Your task to perform on an android device: Go to Yahoo.com Image 0: 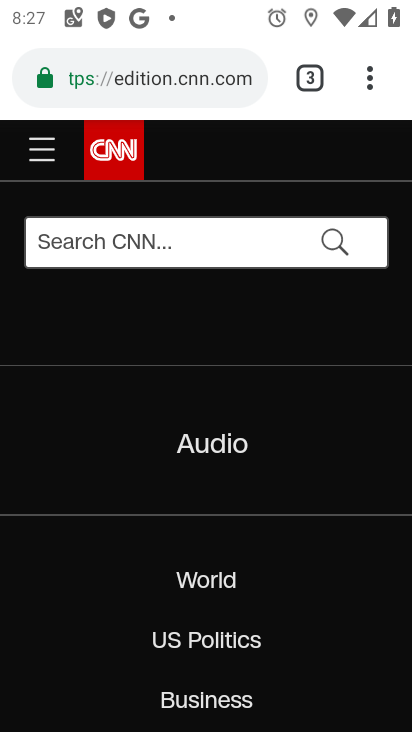
Step 0: press home button
Your task to perform on an android device: Go to Yahoo.com Image 1: 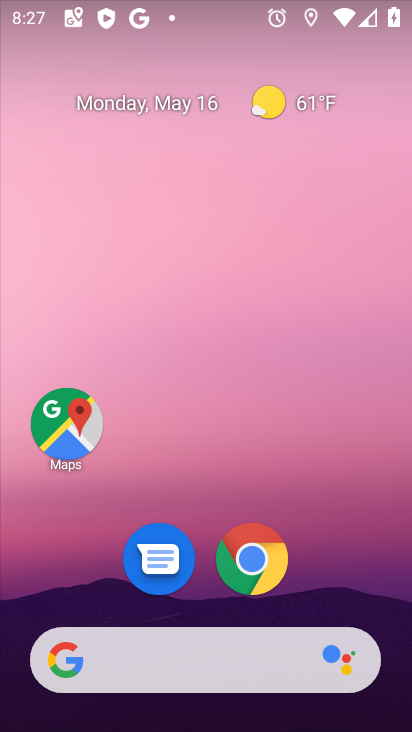
Step 1: drag from (356, 562) to (344, 87)
Your task to perform on an android device: Go to Yahoo.com Image 2: 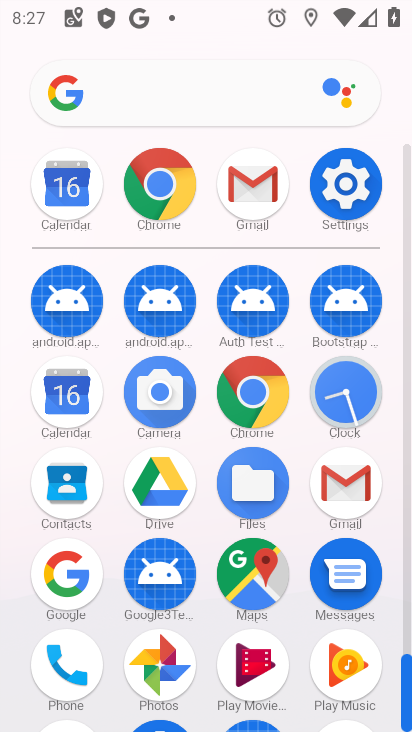
Step 2: click (255, 416)
Your task to perform on an android device: Go to Yahoo.com Image 3: 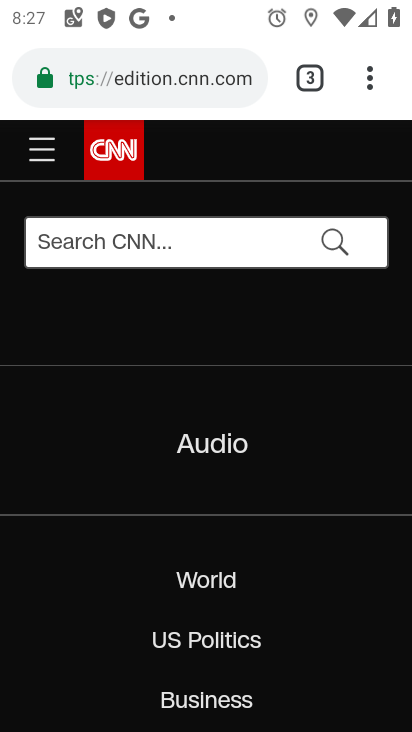
Step 3: click (232, 89)
Your task to perform on an android device: Go to Yahoo.com Image 4: 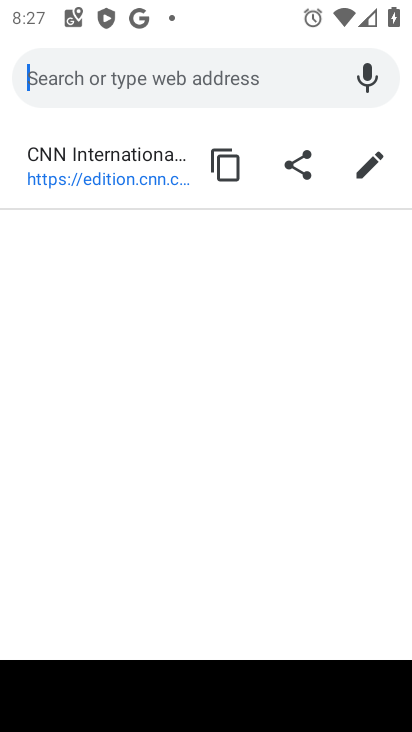
Step 4: type "yahoo.com"
Your task to perform on an android device: Go to Yahoo.com Image 5: 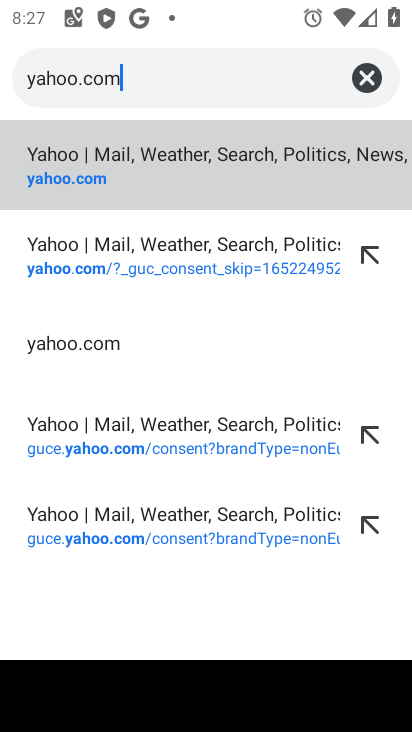
Step 5: click (89, 177)
Your task to perform on an android device: Go to Yahoo.com Image 6: 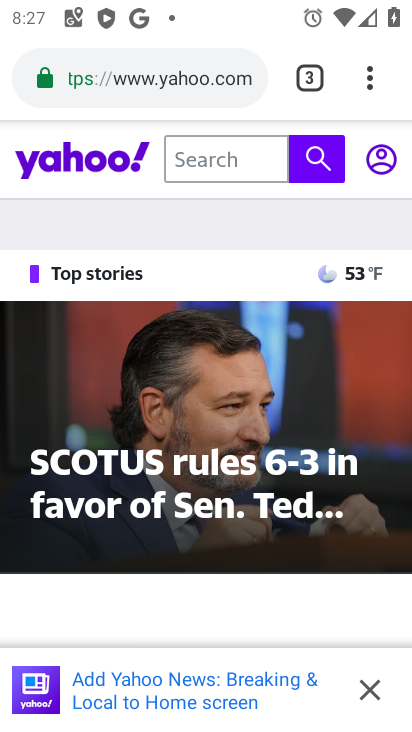
Step 6: click (369, 686)
Your task to perform on an android device: Go to Yahoo.com Image 7: 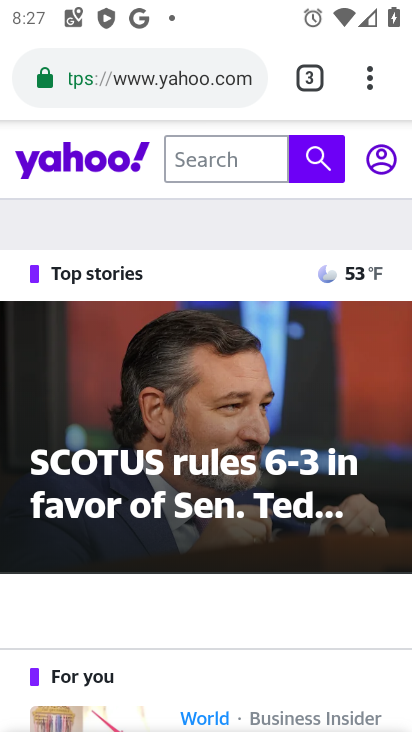
Step 7: task complete